Your task to perform on an android device: Open my contact list Image 0: 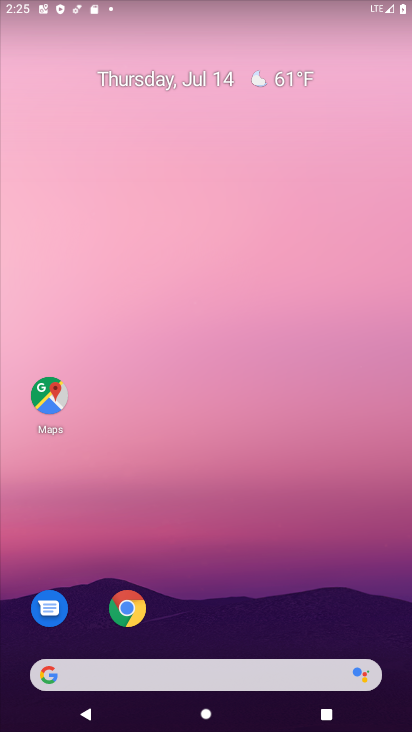
Step 0: drag from (208, 667) to (186, 348)
Your task to perform on an android device: Open my contact list Image 1: 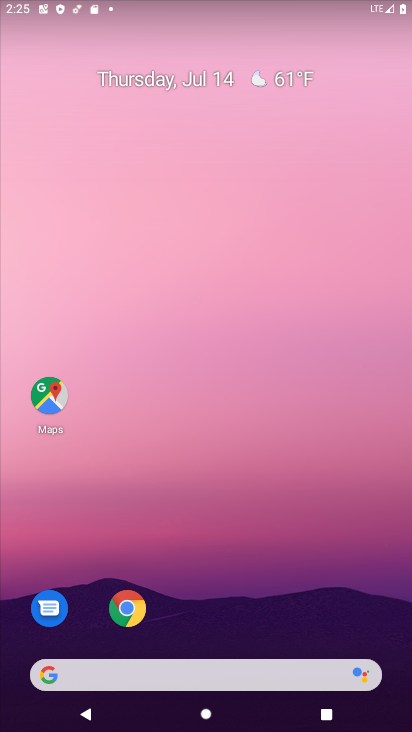
Step 1: drag from (171, 657) to (205, 258)
Your task to perform on an android device: Open my contact list Image 2: 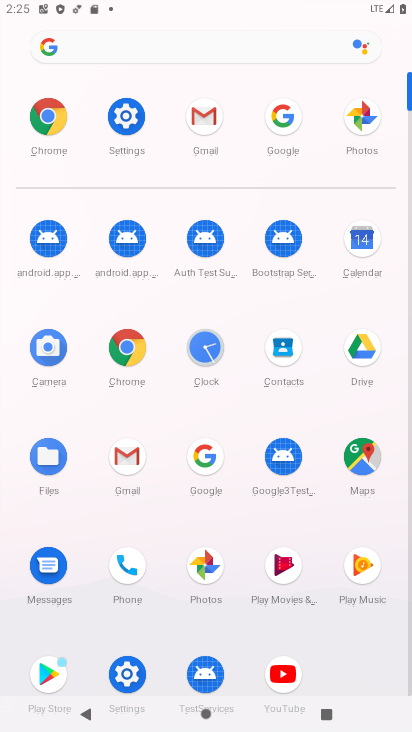
Step 2: click (270, 349)
Your task to perform on an android device: Open my contact list Image 3: 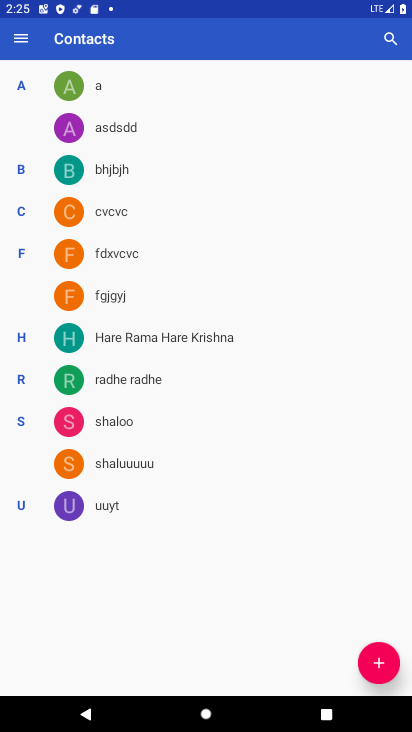
Step 3: task complete